Your task to perform on an android device: change your default location settings in chrome Image 0: 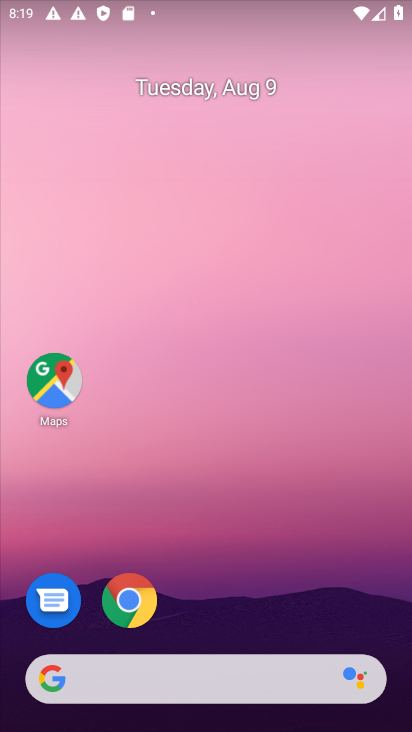
Step 0: press home button
Your task to perform on an android device: change your default location settings in chrome Image 1: 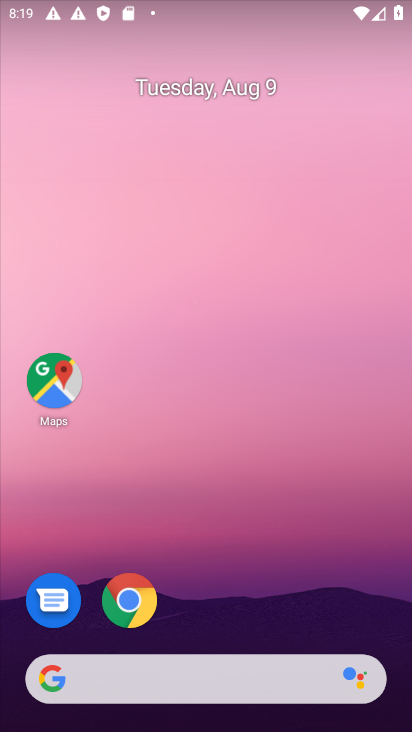
Step 1: click (126, 603)
Your task to perform on an android device: change your default location settings in chrome Image 2: 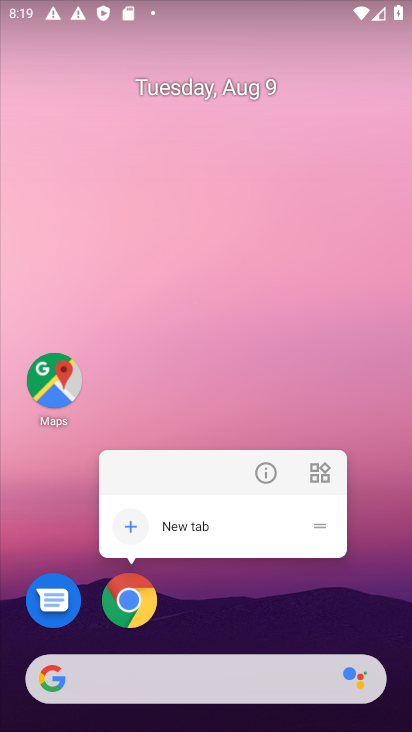
Step 2: click (126, 603)
Your task to perform on an android device: change your default location settings in chrome Image 3: 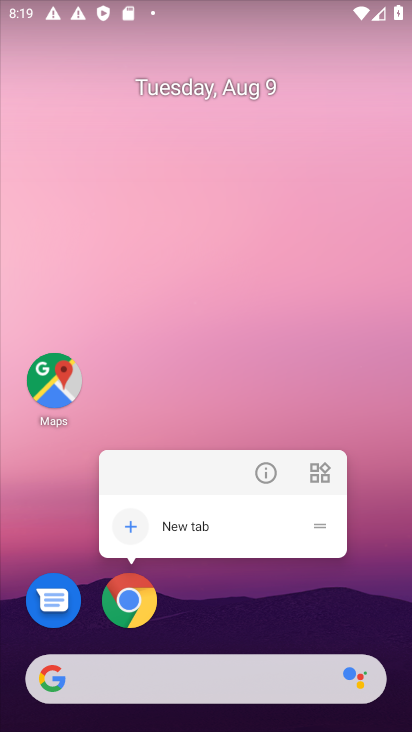
Step 3: click (126, 603)
Your task to perform on an android device: change your default location settings in chrome Image 4: 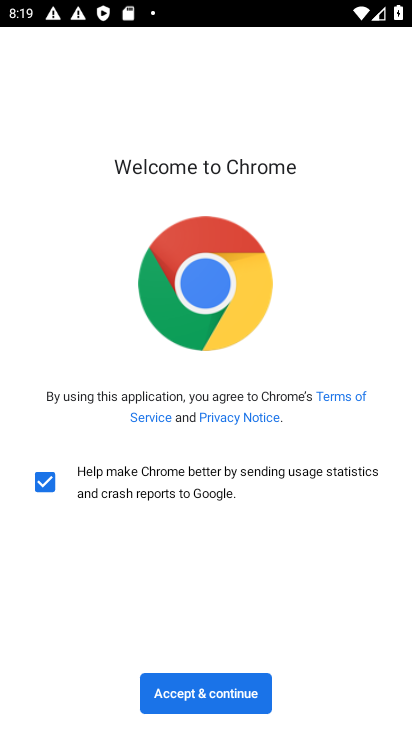
Step 4: click (208, 687)
Your task to perform on an android device: change your default location settings in chrome Image 5: 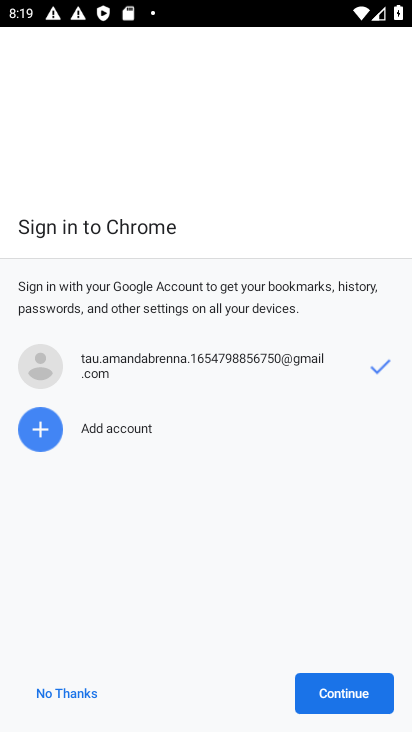
Step 5: click (362, 698)
Your task to perform on an android device: change your default location settings in chrome Image 6: 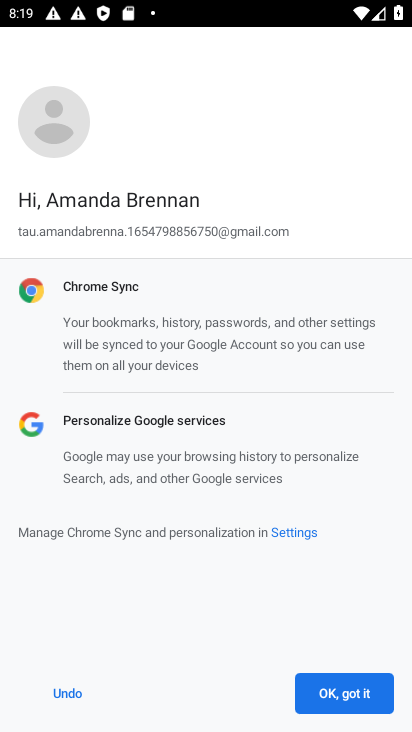
Step 6: click (362, 698)
Your task to perform on an android device: change your default location settings in chrome Image 7: 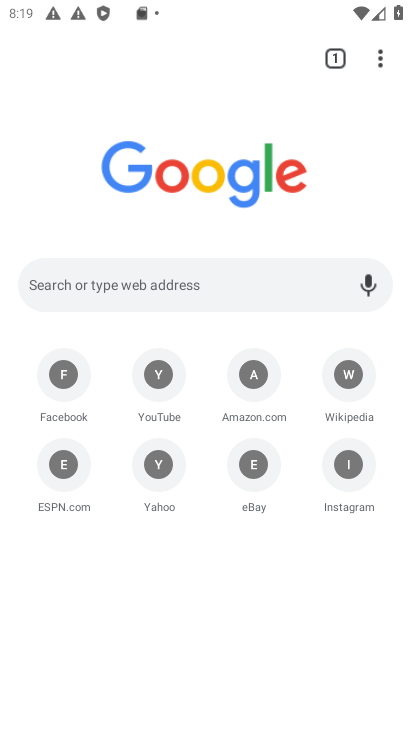
Step 7: drag from (382, 65) to (179, 489)
Your task to perform on an android device: change your default location settings in chrome Image 8: 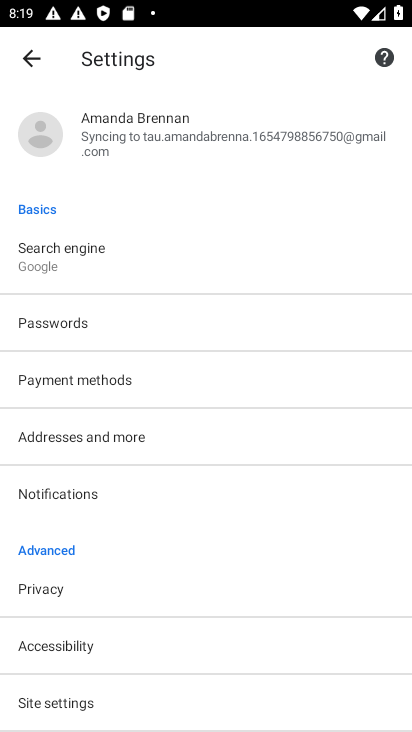
Step 8: click (61, 708)
Your task to perform on an android device: change your default location settings in chrome Image 9: 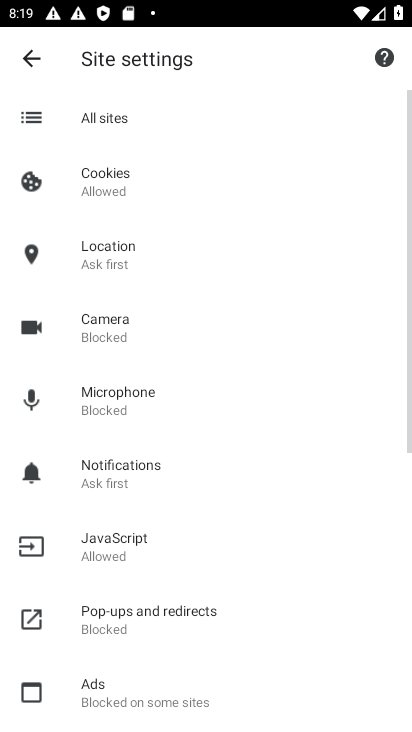
Step 9: click (108, 258)
Your task to perform on an android device: change your default location settings in chrome Image 10: 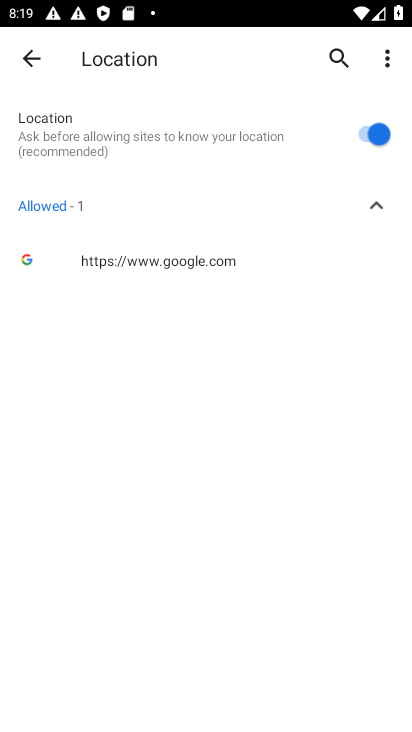
Step 10: click (378, 131)
Your task to perform on an android device: change your default location settings in chrome Image 11: 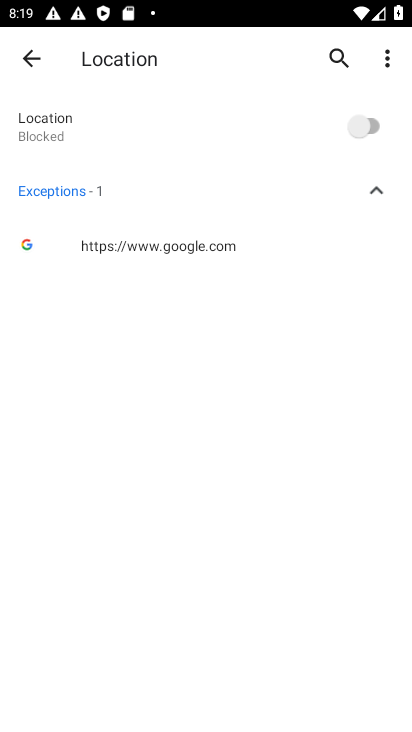
Step 11: task complete